Your task to perform on an android device: Open Yahoo.com Image 0: 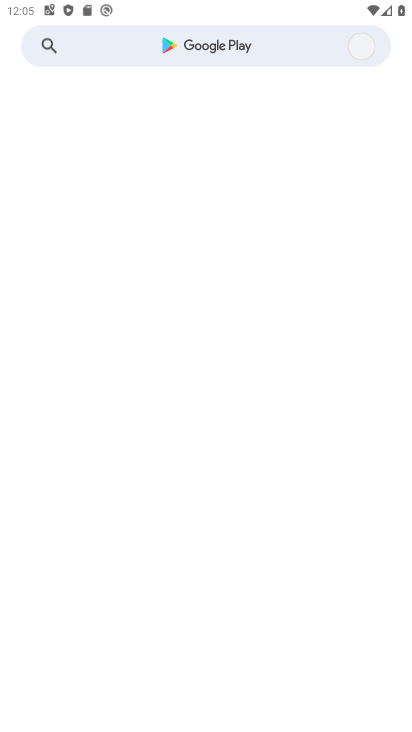
Step 0: press home button
Your task to perform on an android device: Open Yahoo.com Image 1: 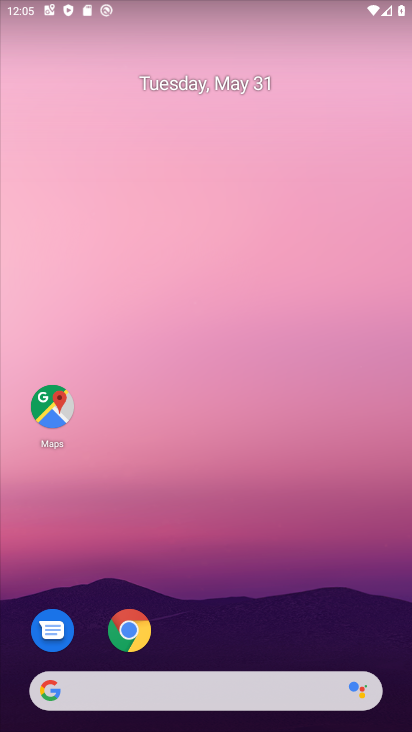
Step 1: click (128, 627)
Your task to perform on an android device: Open Yahoo.com Image 2: 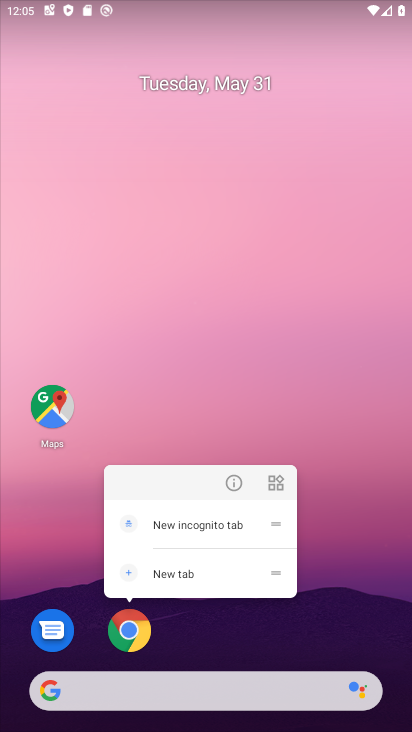
Step 2: click (130, 632)
Your task to perform on an android device: Open Yahoo.com Image 3: 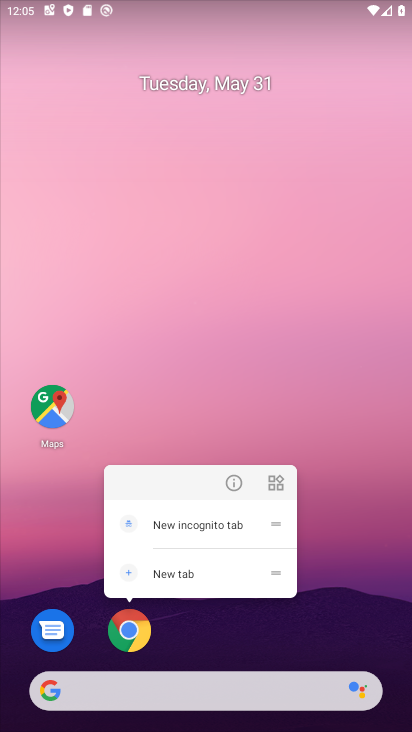
Step 3: click (132, 632)
Your task to perform on an android device: Open Yahoo.com Image 4: 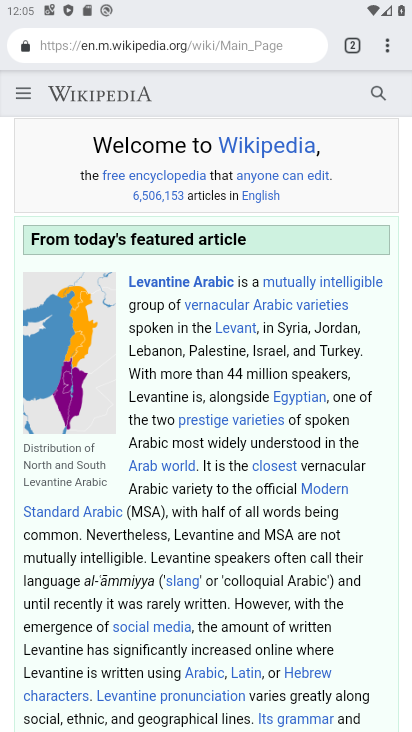
Step 4: drag from (383, 43) to (272, 143)
Your task to perform on an android device: Open Yahoo.com Image 5: 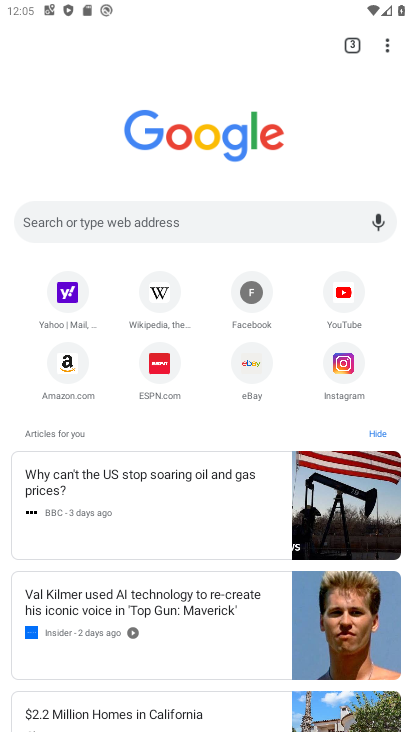
Step 5: click (64, 294)
Your task to perform on an android device: Open Yahoo.com Image 6: 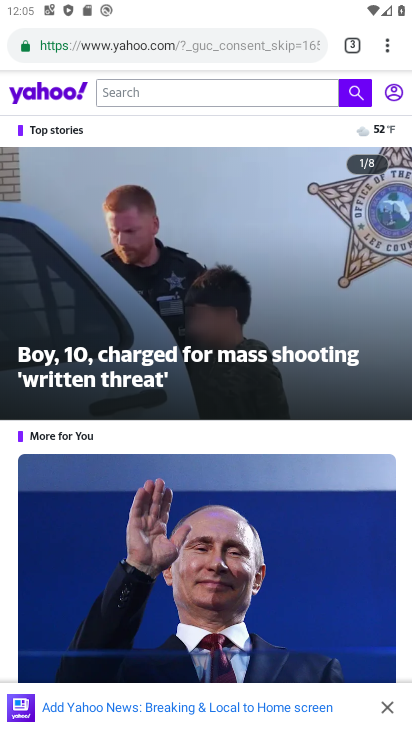
Step 6: task complete